Your task to perform on an android device: turn on bluetooth scan Image 0: 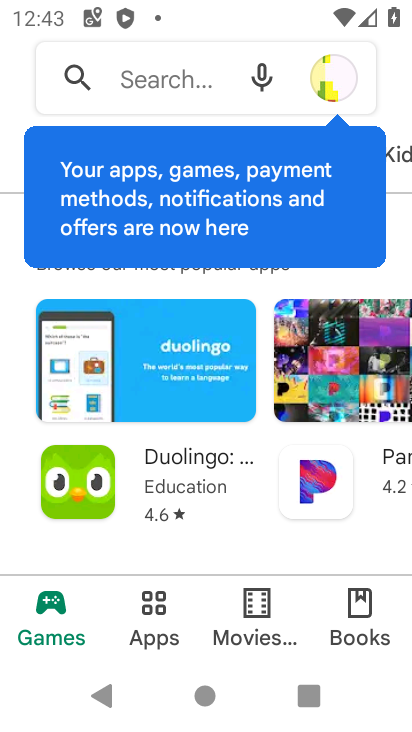
Step 0: press home button
Your task to perform on an android device: turn on bluetooth scan Image 1: 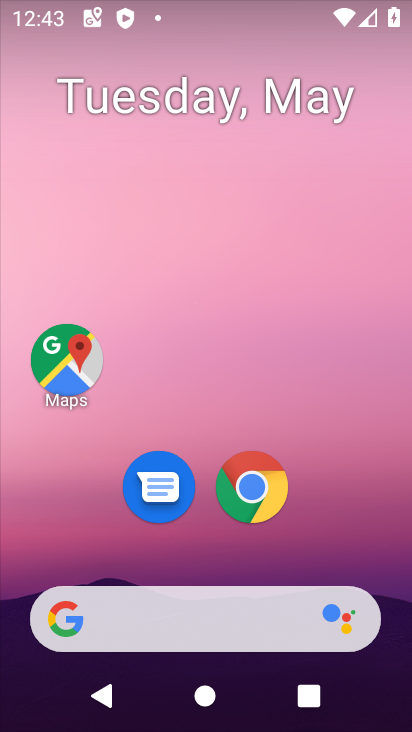
Step 1: drag from (311, 543) to (303, 191)
Your task to perform on an android device: turn on bluetooth scan Image 2: 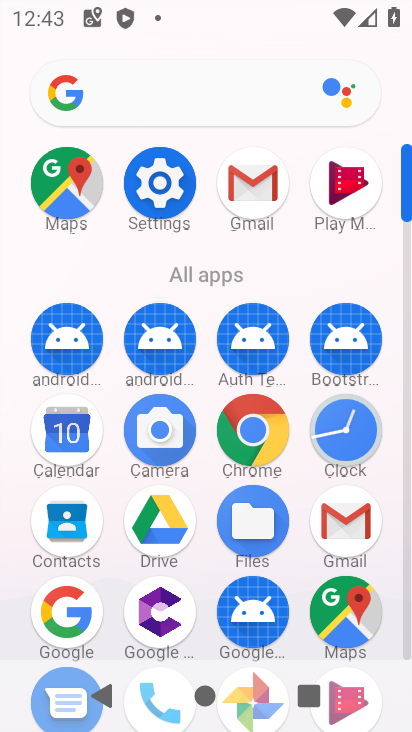
Step 2: click (149, 185)
Your task to perform on an android device: turn on bluetooth scan Image 3: 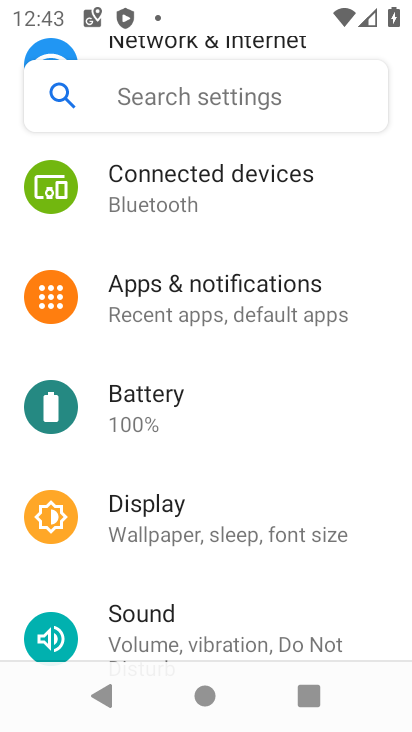
Step 3: drag from (200, 560) to (195, 243)
Your task to perform on an android device: turn on bluetooth scan Image 4: 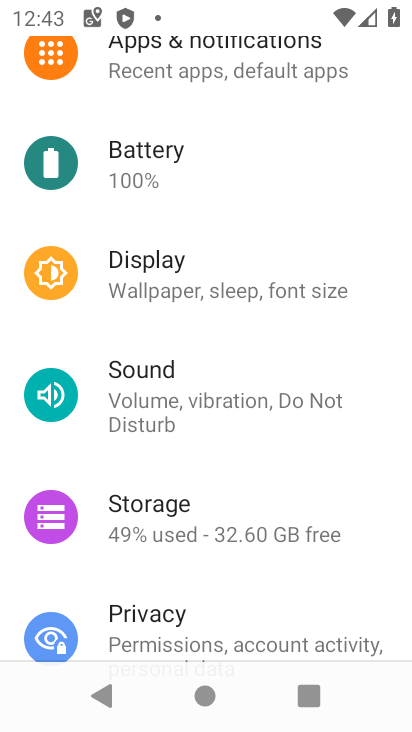
Step 4: drag from (211, 555) to (228, 291)
Your task to perform on an android device: turn on bluetooth scan Image 5: 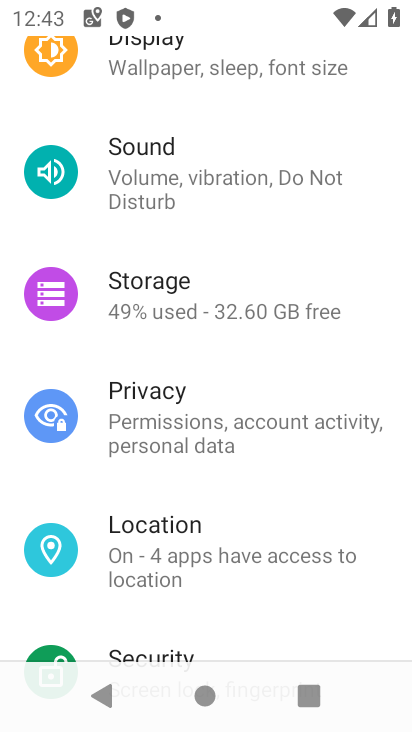
Step 5: click (206, 539)
Your task to perform on an android device: turn on bluetooth scan Image 6: 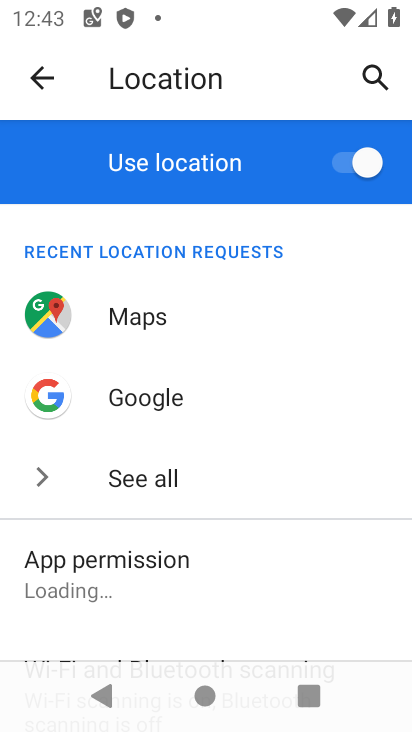
Step 6: drag from (237, 576) to (238, 306)
Your task to perform on an android device: turn on bluetooth scan Image 7: 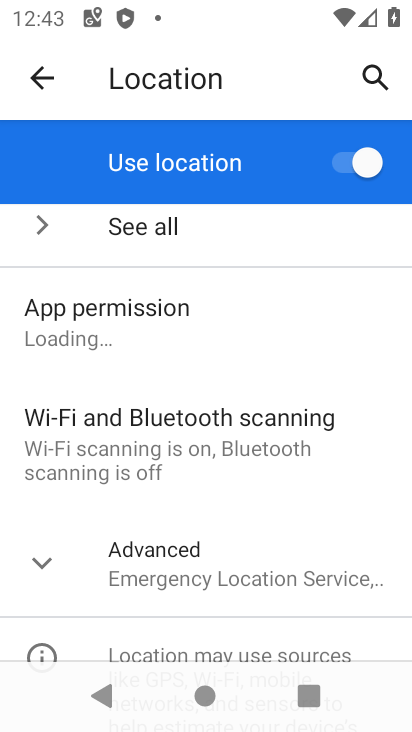
Step 7: click (249, 445)
Your task to perform on an android device: turn on bluetooth scan Image 8: 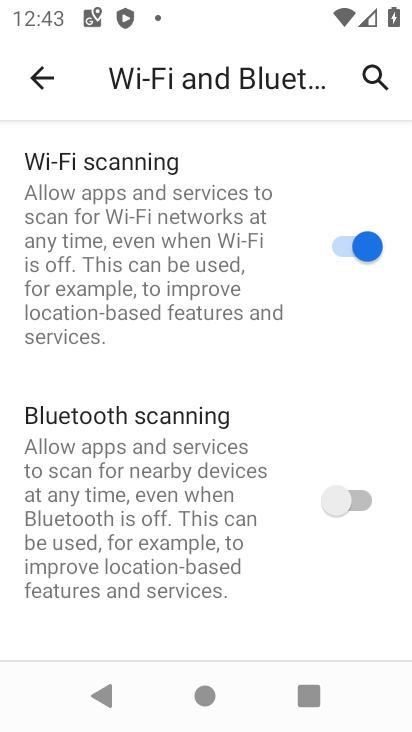
Step 8: click (353, 499)
Your task to perform on an android device: turn on bluetooth scan Image 9: 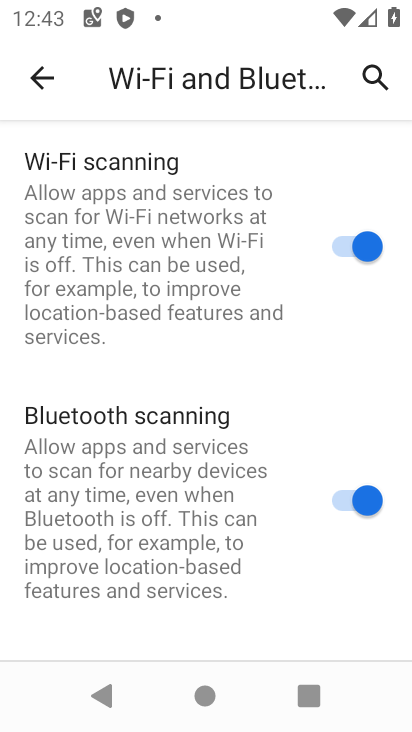
Step 9: task complete